Your task to perform on an android device: turn on airplane mode Image 0: 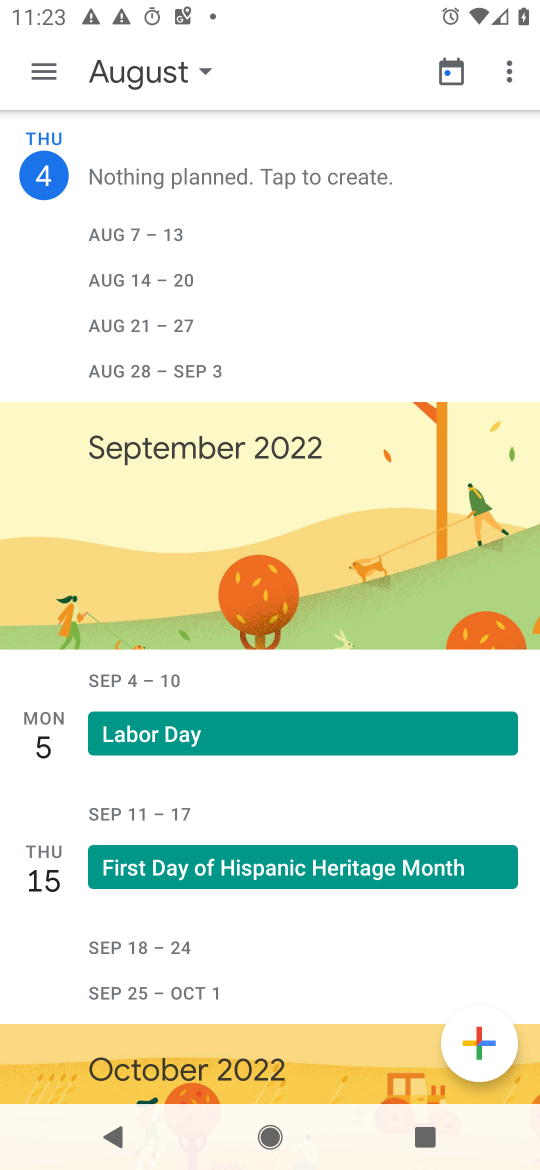
Step 0: press home button
Your task to perform on an android device: turn on airplane mode Image 1: 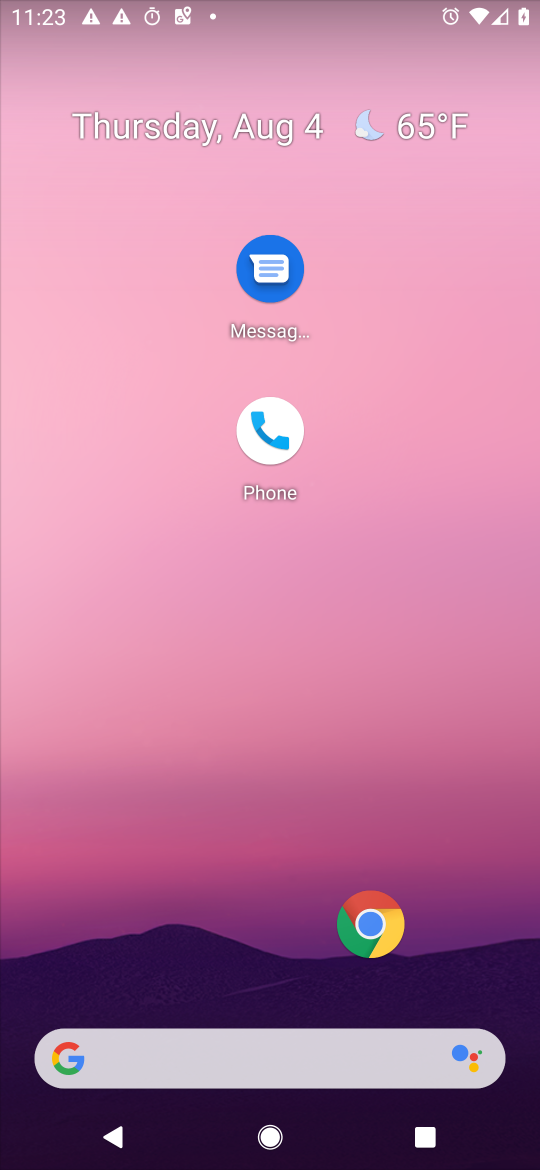
Step 1: drag from (240, 950) to (331, 304)
Your task to perform on an android device: turn on airplane mode Image 2: 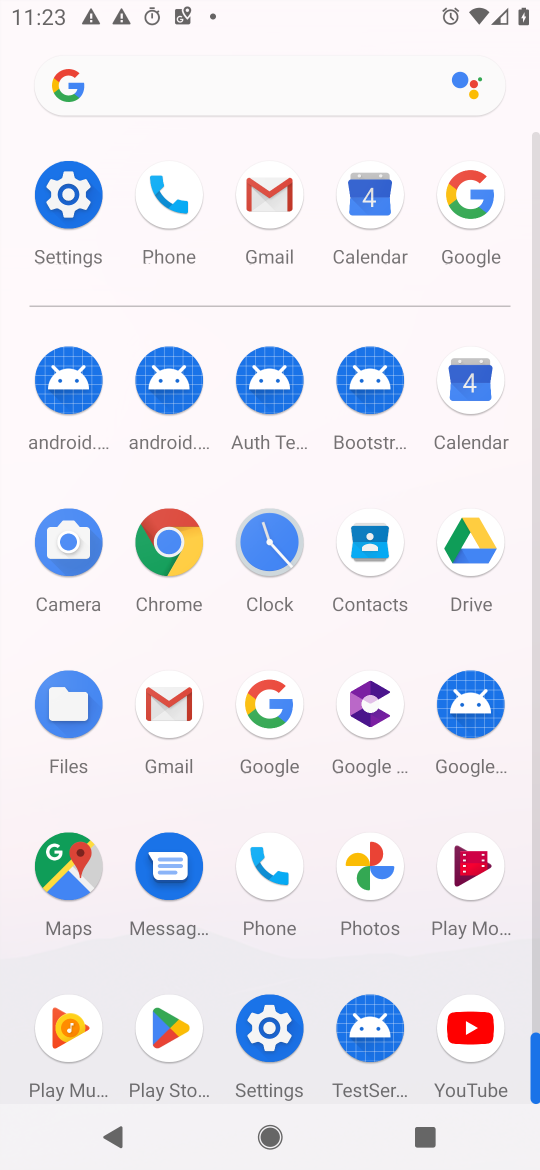
Step 2: click (267, 1032)
Your task to perform on an android device: turn on airplane mode Image 3: 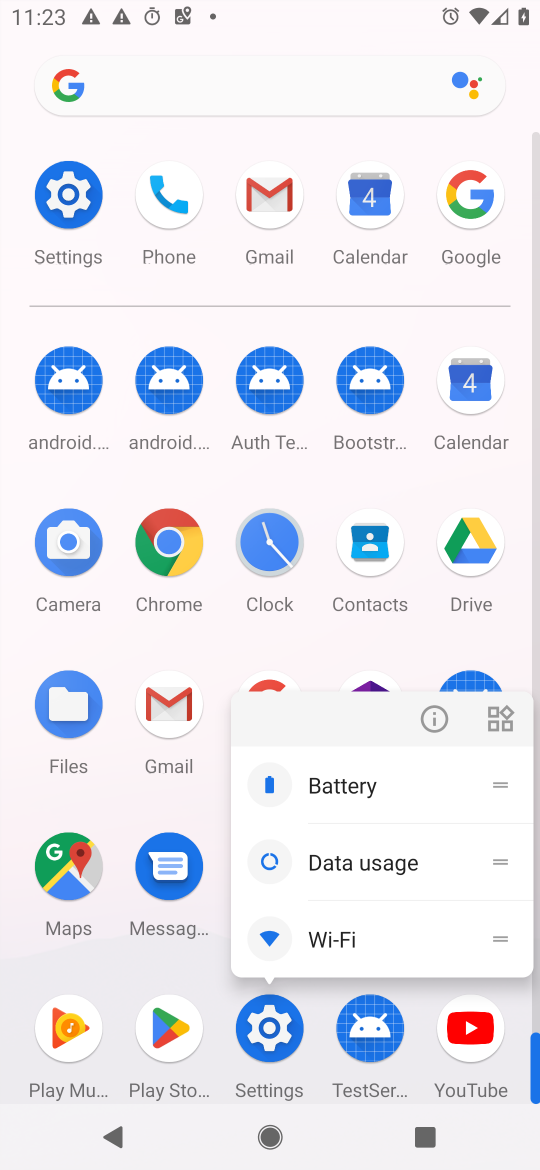
Step 3: click (434, 721)
Your task to perform on an android device: turn on airplane mode Image 4: 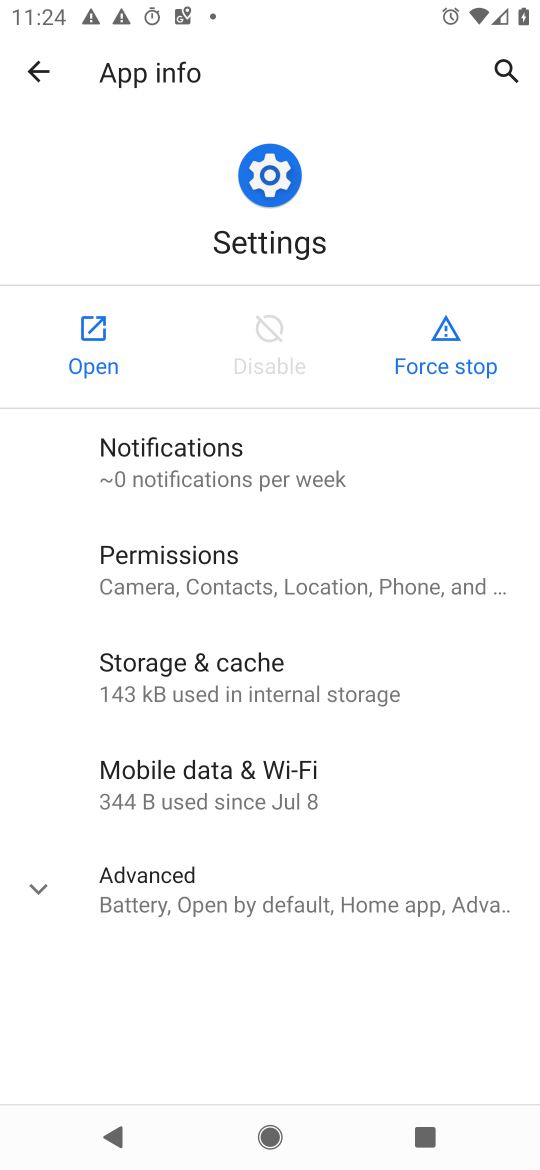
Step 4: click (98, 358)
Your task to perform on an android device: turn on airplane mode Image 5: 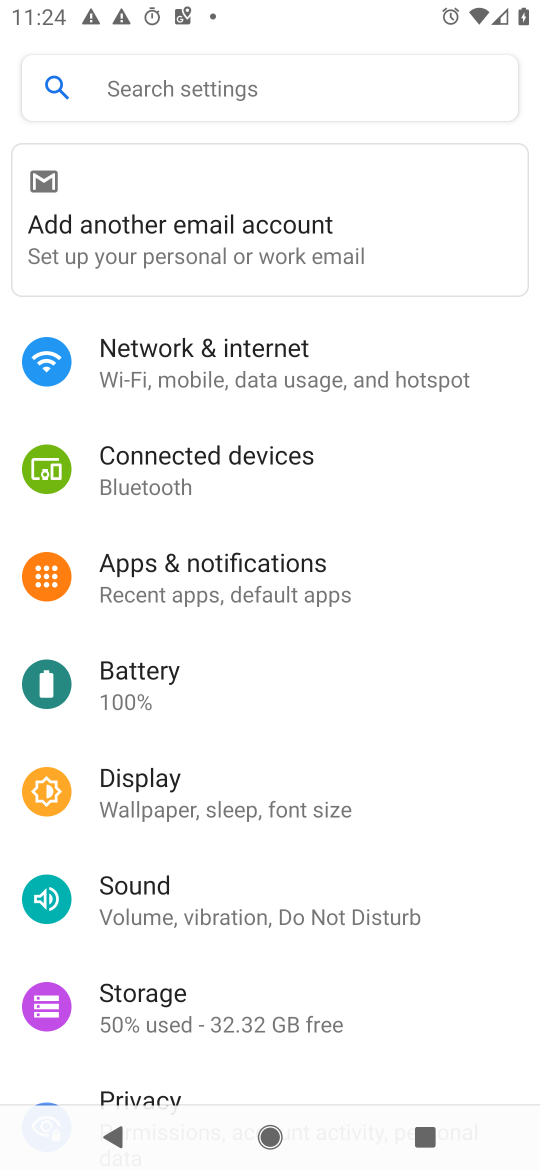
Step 5: click (201, 348)
Your task to perform on an android device: turn on airplane mode Image 6: 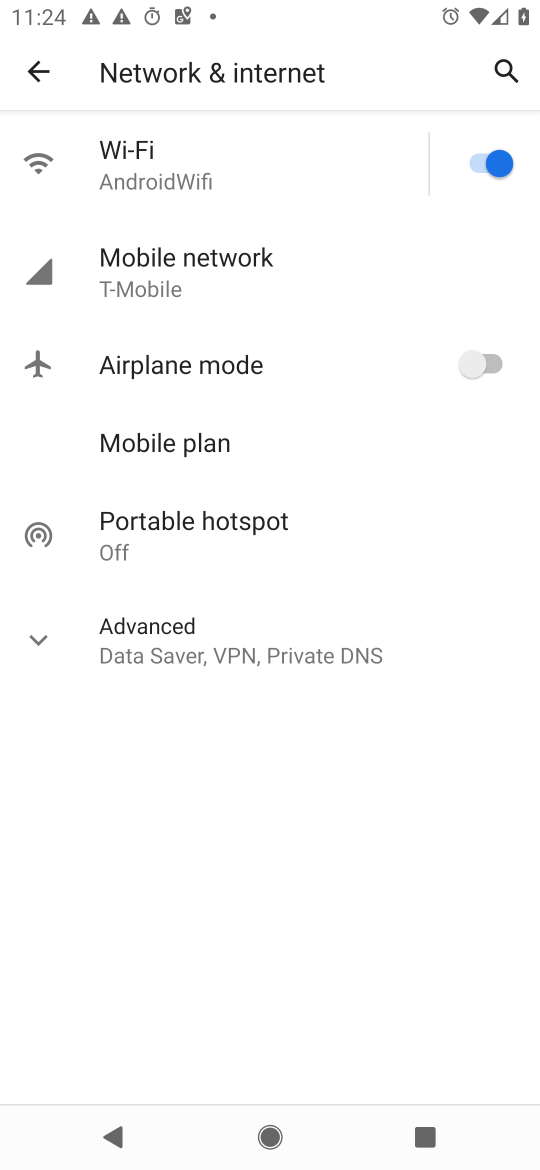
Step 6: click (236, 366)
Your task to perform on an android device: turn on airplane mode Image 7: 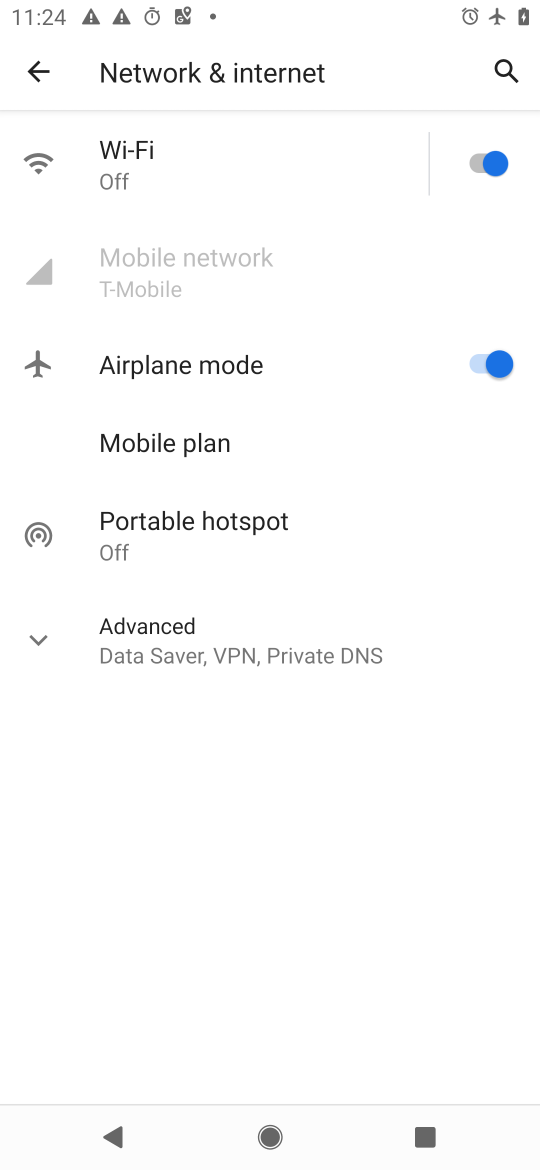
Step 7: task complete